Your task to perform on an android device: open app "Pluto TV - Live TV and Movies" (install if not already installed) Image 0: 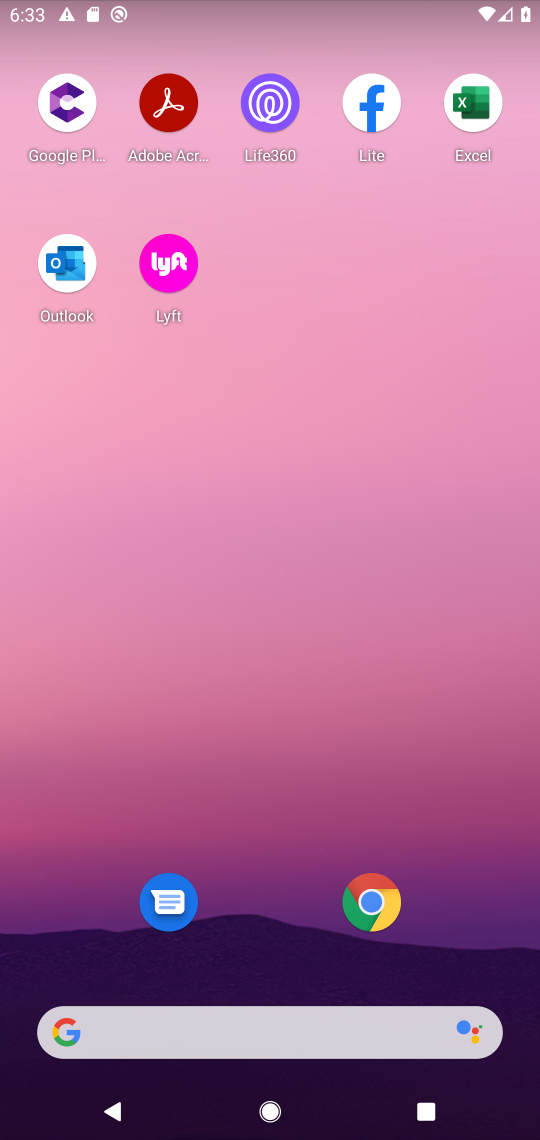
Step 0: press home button
Your task to perform on an android device: open app "Pluto TV - Live TV and Movies" (install if not already installed) Image 1: 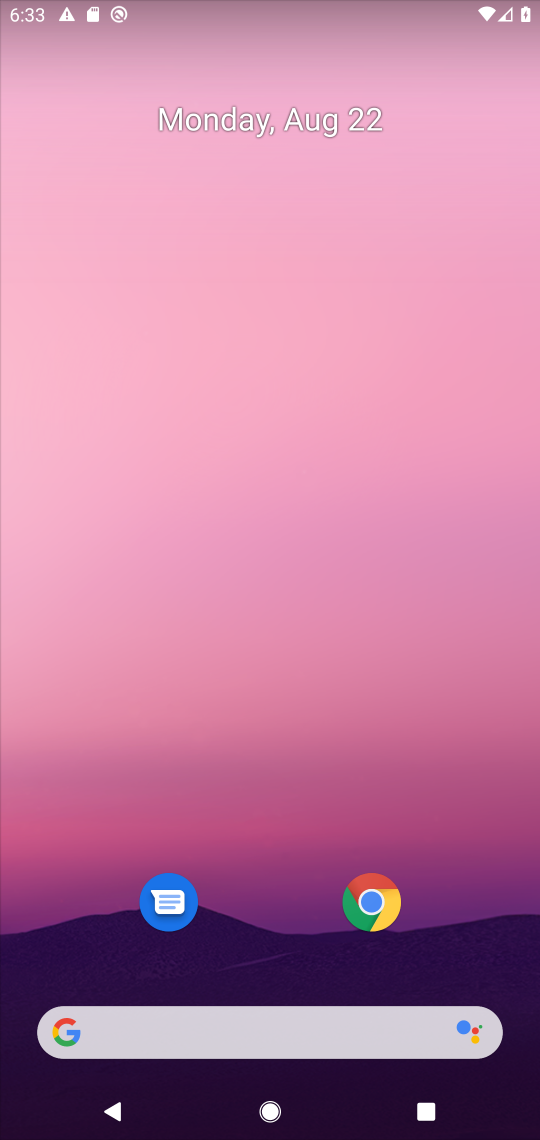
Step 1: click (231, 47)
Your task to perform on an android device: open app "Pluto TV - Live TV and Movies" (install if not already installed) Image 2: 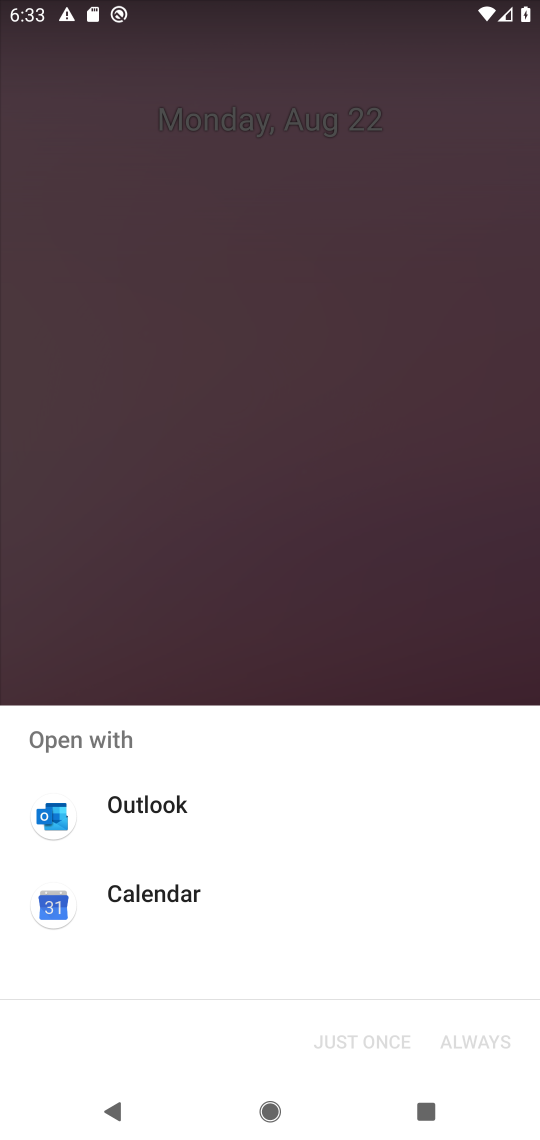
Step 2: press home button
Your task to perform on an android device: open app "Pluto TV - Live TV and Movies" (install if not already installed) Image 3: 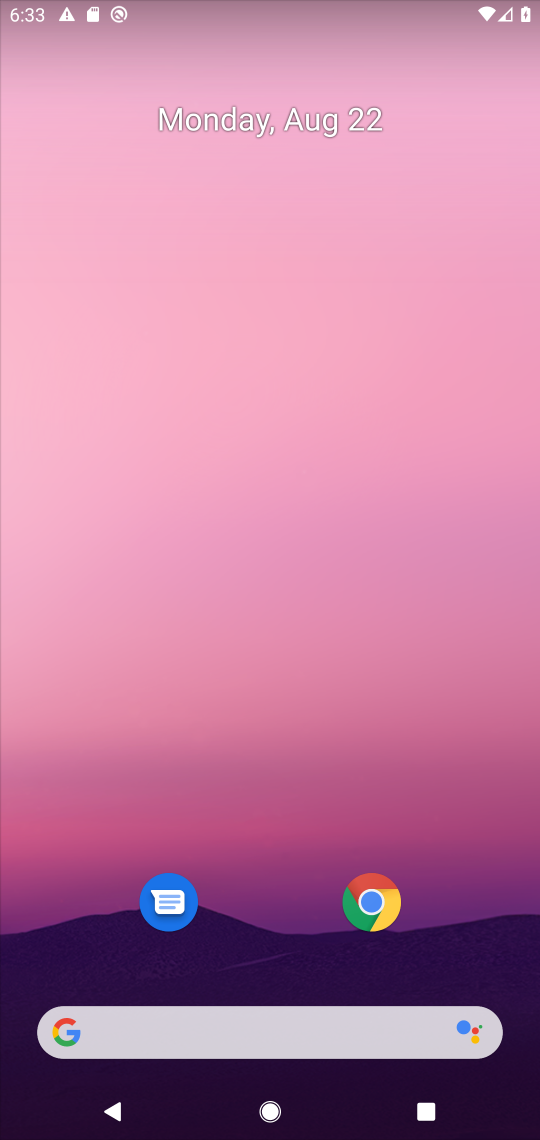
Step 3: drag from (262, 651) to (244, 62)
Your task to perform on an android device: open app "Pluto TV - Live TV and Movies" (install if not already installed) Image 4: 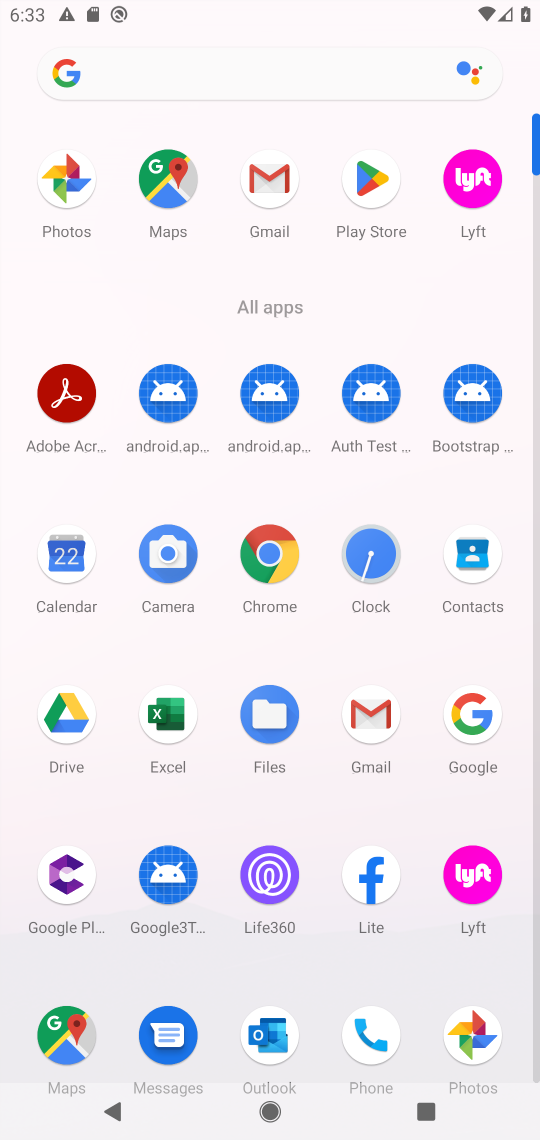
Step 4: click (372, 171)
Your task to perform on an android device: open app "Pluto TV - Live TV and Movies" (install if not already installed) Image 5: 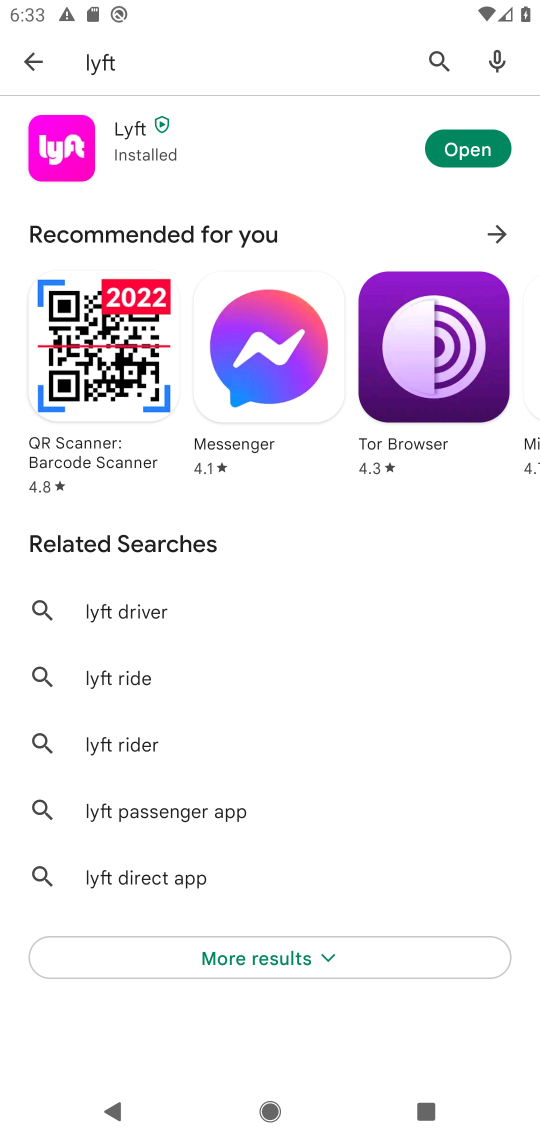
Step 5: click (32, 57)
Your task to perform on an android device: open app "Pluto TV - Live TV and Movies" (install if not already installed) Image 6: 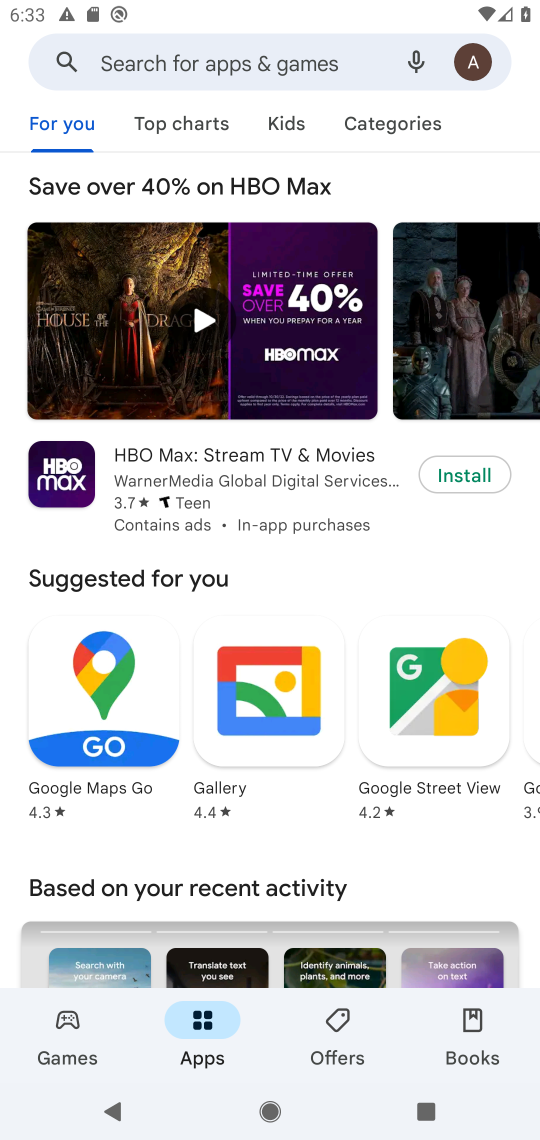
Step 6: click (178, 57)
Your task to perform on an android device: open app "Pluto TV - Live TV and Movies" (install if not already installed) Image 7: 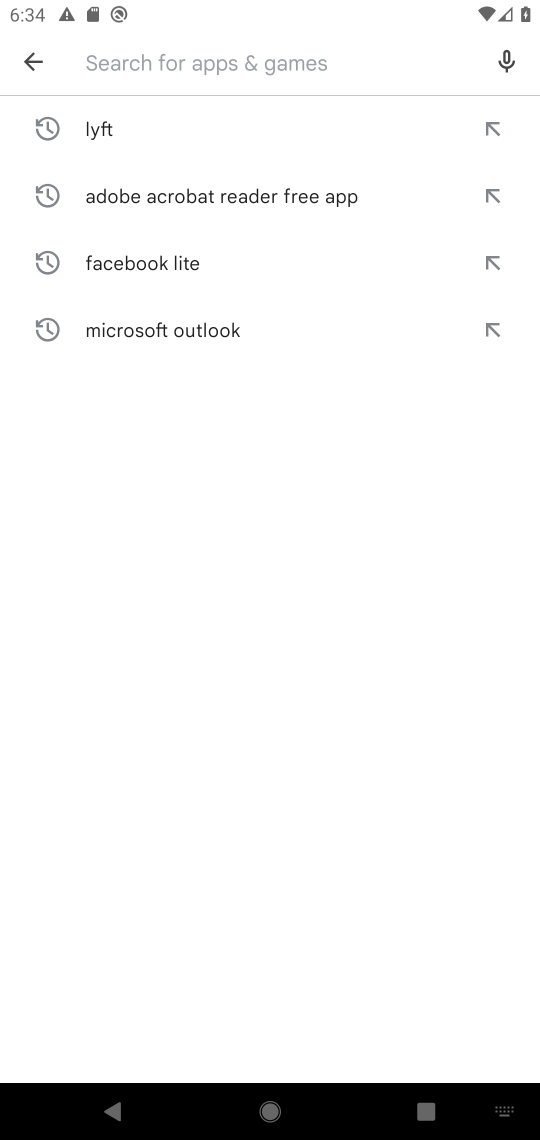
Step 7: type "Pluto TV - Live TV and Movies"
Your task to perform on an android device: open app "Pluto TV - Live TV and Movies" (install if not already installed) Image 8: 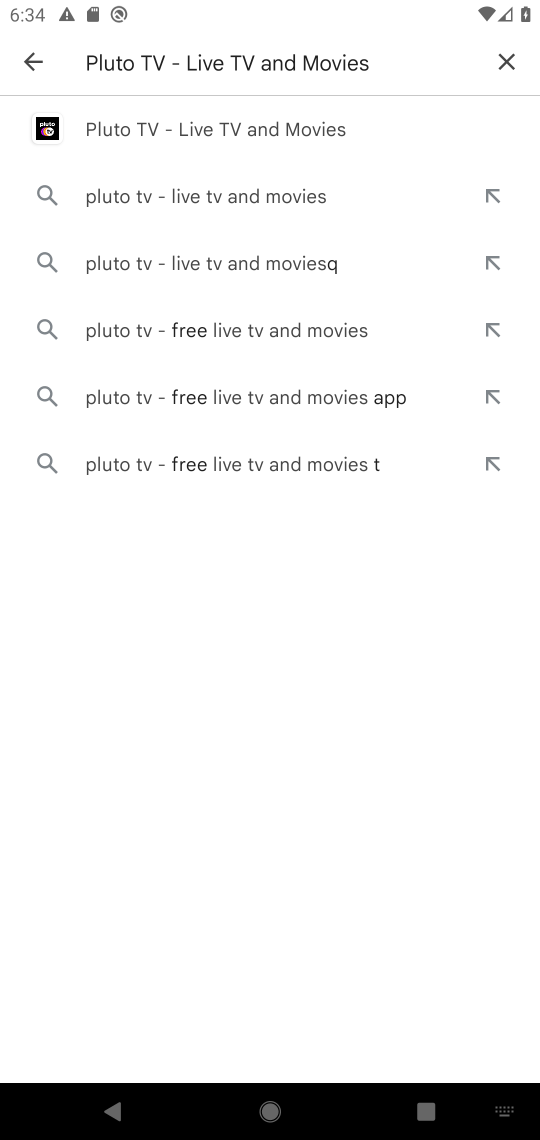
Step 8: click (269, 134)
Your task to perform on an android device: open app "Pluto TV - Live TV and Movies" (install if not already installed) Image 9: 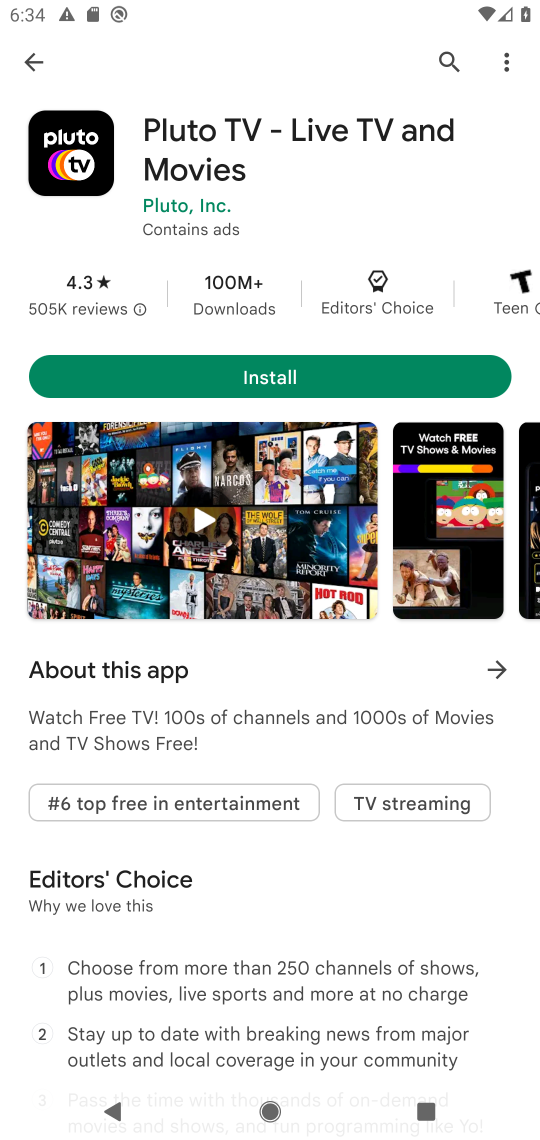
Step 9: click (273, 370)
Your task to perform on an android device: open app "Pluto TV - Live TV and Movies" (install if not already installed) Image 10: 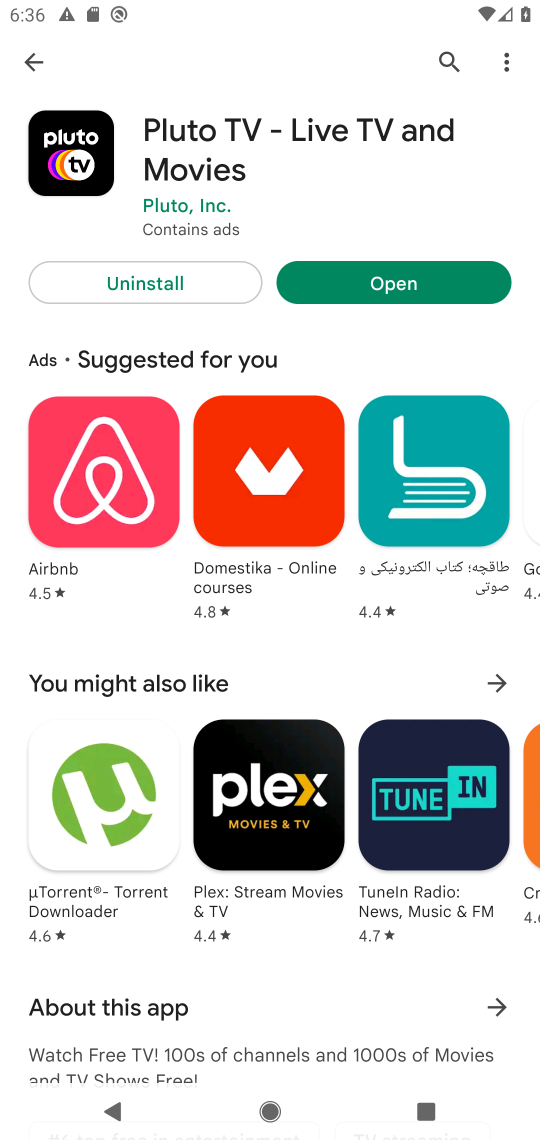
Step 10: click (391, 287)
Your task to perform on an android device: open app "Pluto TV - Live TV and Movies" (install if not already installed) Image 11: 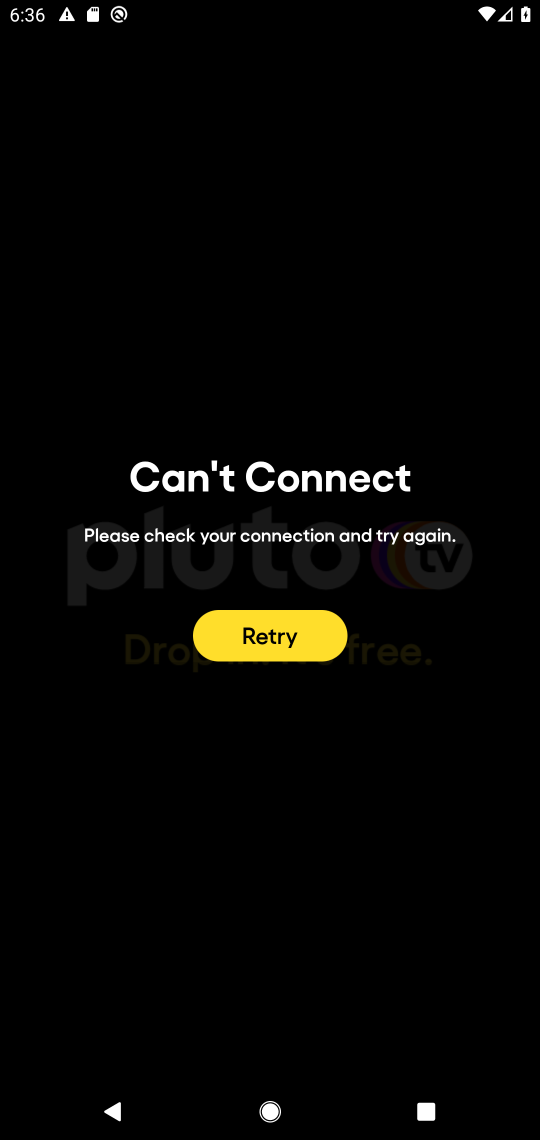
Step 11: click (391, 287)
Your task to perform on an android device: open app "Pluto TV - Live TV and Movies" (install if not already installed) Image 12: 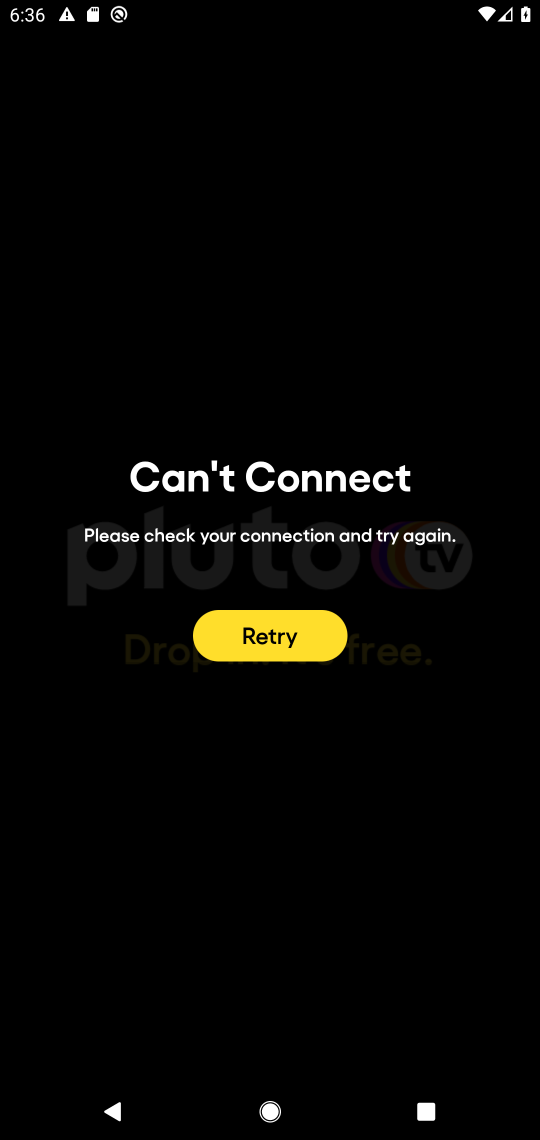
Step 12: task complete